Your task to perform on an android device: Check the news Image 0: 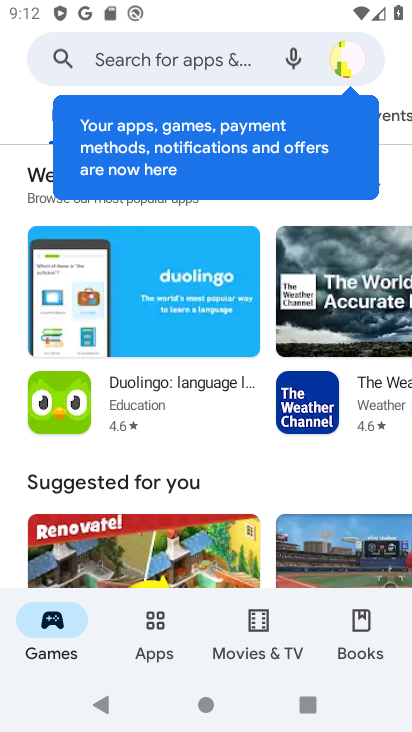
Step 0: press home button
Your task to perform on an android device: Check the news Image 1: 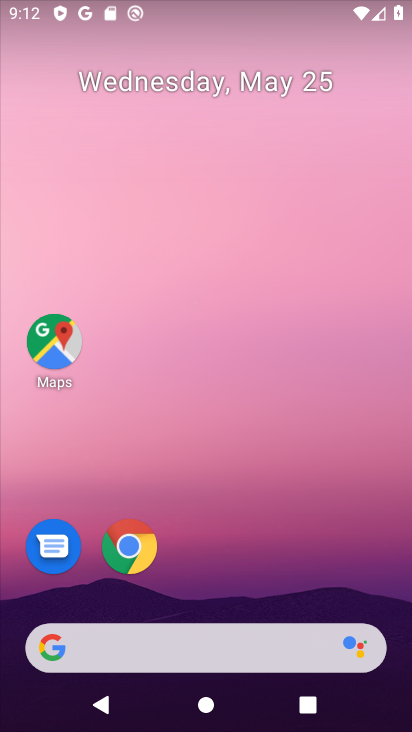
Step 1: task complete